Your task to perform on an android device: turn on priority inbox in the gmail app Image 0: 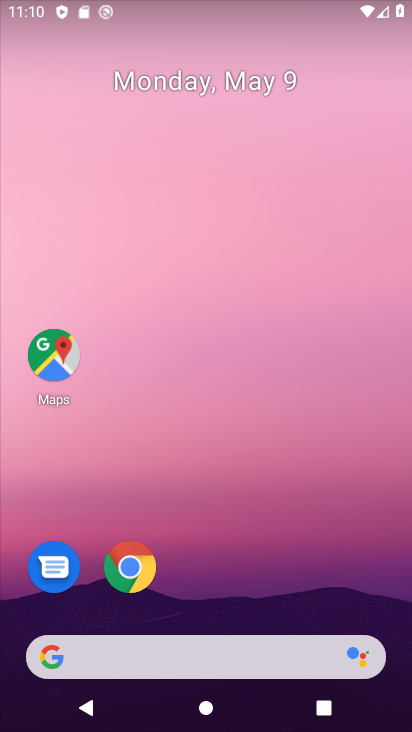
Step 0: drag from (222, 504) to (290, 241)
Your task to perform on an android device: turn on priority inbox in the gmail app Image 1: 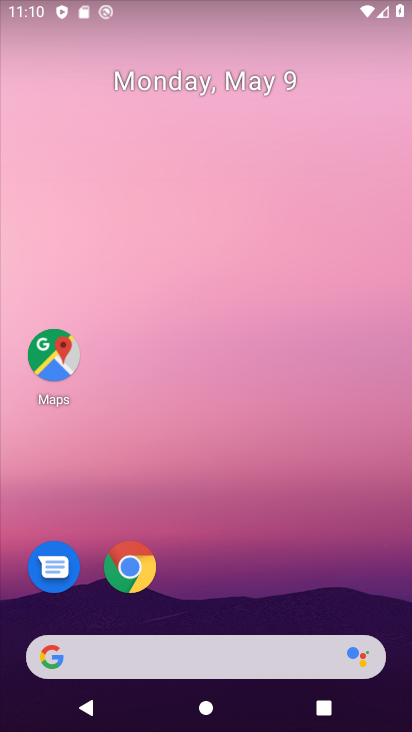
Step 1: drag from (167, 634) to (236, 164)
Your task to perform on an android device: turn on priority inbox in the gmail app Image 2: 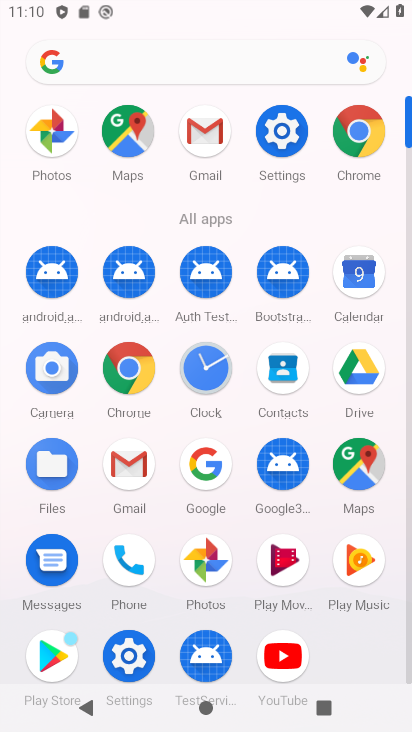
Step 2: click (205, 146)
Your task to perform on an android device: turn on priority inbox in the gmail app Image 3: 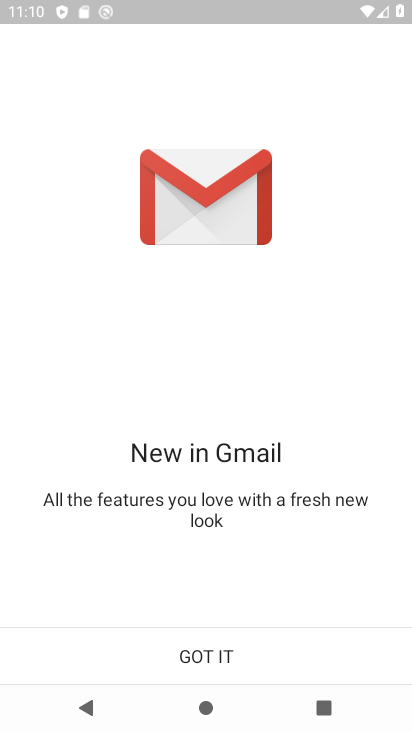
Step 3: click (224, 652)
Your task to perform on an android device: turn on priority inbox in the gmail app Image 4: 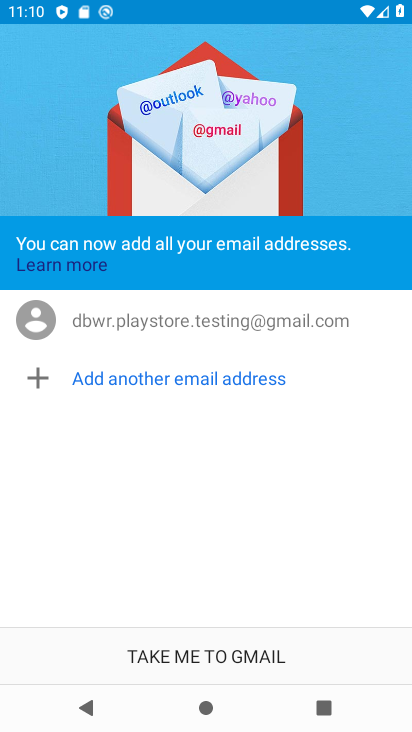
Step 4: click (224, 649)
Your task to perform on an android device: turn on priority inbox in the gmail app Image 5: 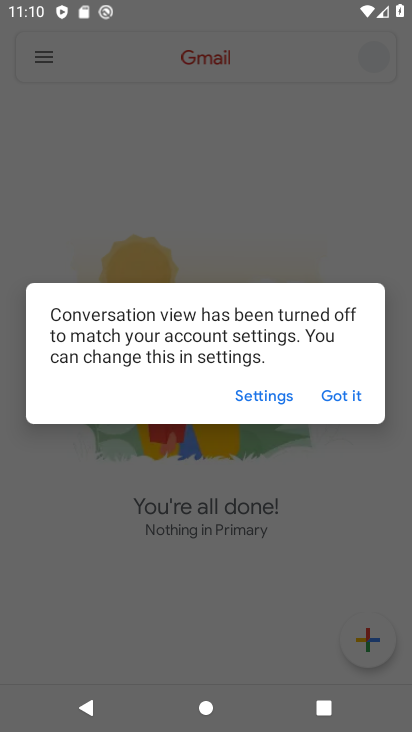
Step 5: click (327, 403)
Your task to perform on an android device: turn on priority inbox in the gmail app Image 6: 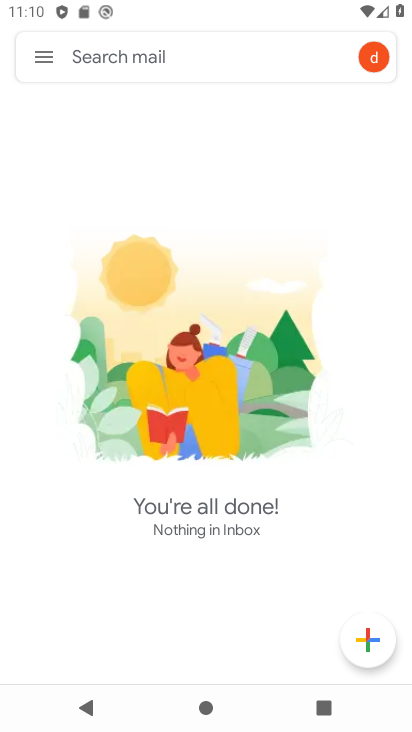
Step 6: click (34, 64)
Your task to perform on an android device: turn on priority inbox in the gmail app Image 7: 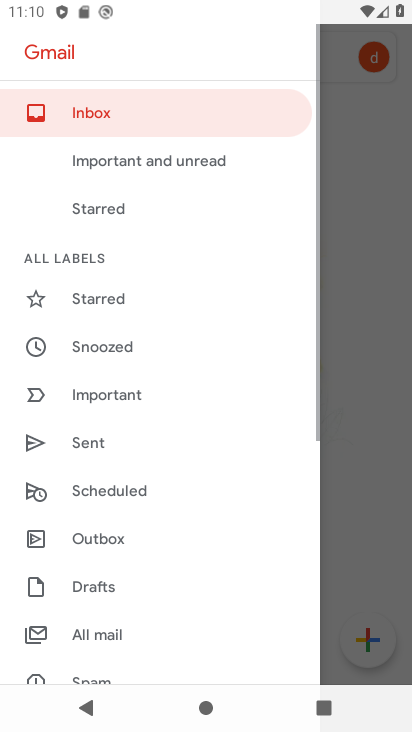
Step 7: drag from (111, 652) to (164, 266)
Your task to perform on an android device: turn on priority inbox in the gmail app Image 8: 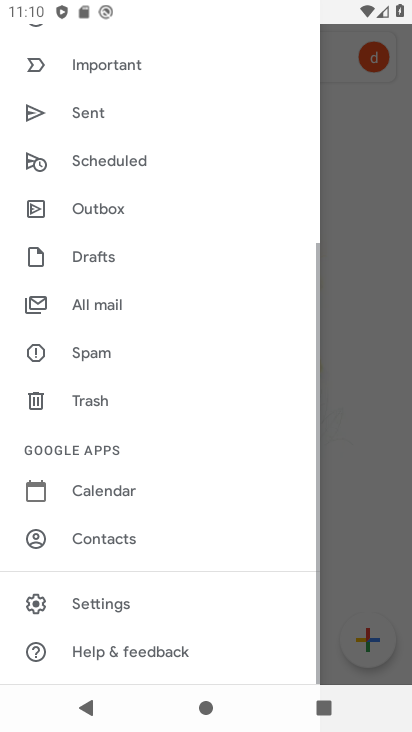
Step 8: click (98, 603)
Your task to perform on an android device: turn on priority inbox in the gmail app Image 9: 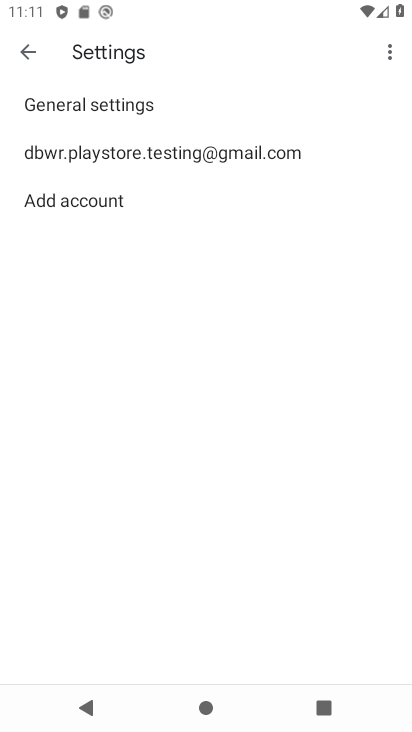
Step 9: click (136, 155)
Your task to perform on an android device: turn on priority inbox in the gmail app Image 10: 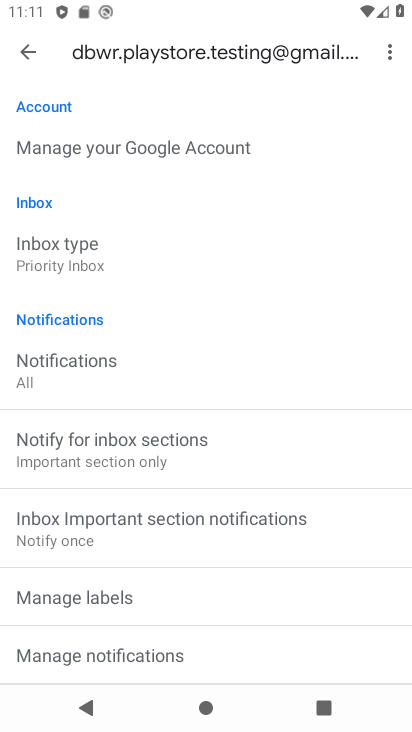
Step 10: task complete